Your task to perform on an android device: move an email to a new category in the gmail app Image 0: 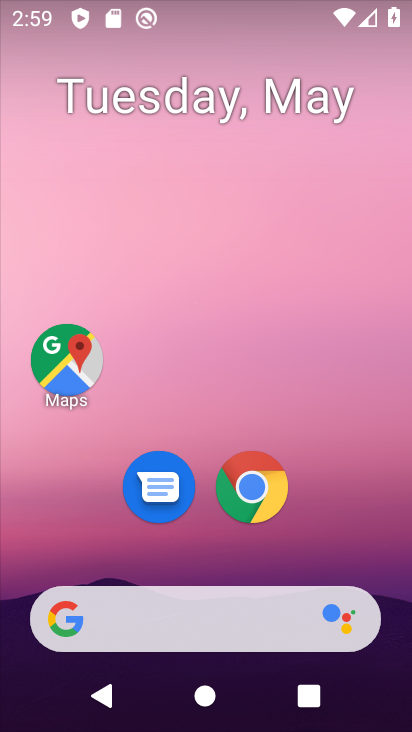
Step 0: drag from (222, 571) to (202, 19)
Your task to perform on an android device: move an email to a new category in the gmail app Image 1: 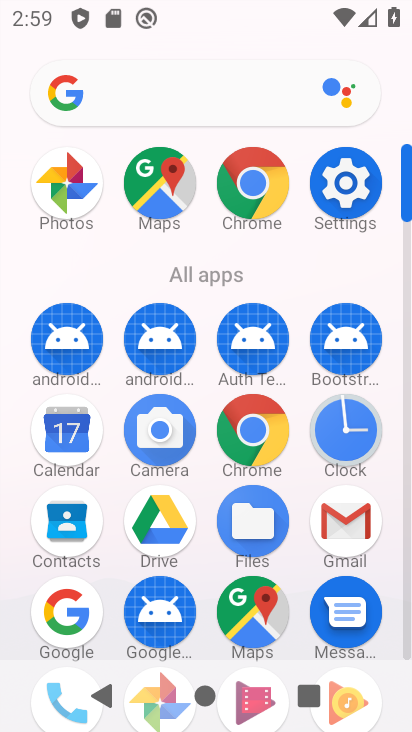
Step 1: click (335, 526)
Your task to perform on an android device: move an email to a new category in the gmail app Image 2: 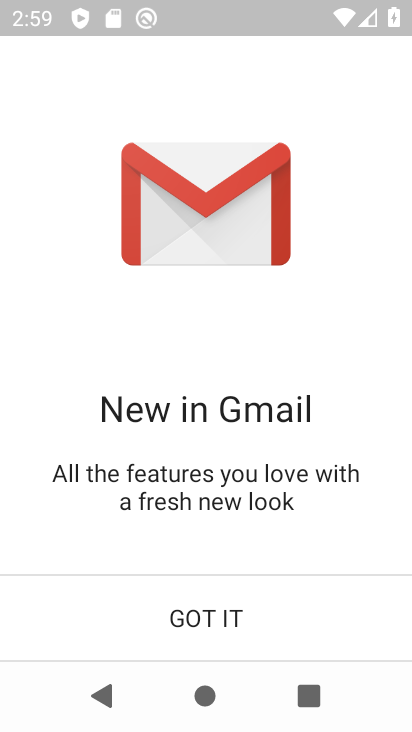
Step 2: click (158, 643)
Your task to perform on an android device: move an email to a new category in the gmail app Image 3: 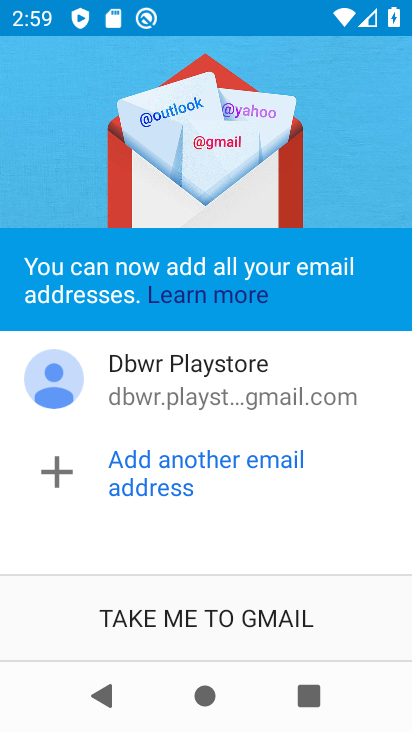
Step 3: click (168, 622)
Your task to perform on an android device: move an email to a new category in the gmail app Image 4: 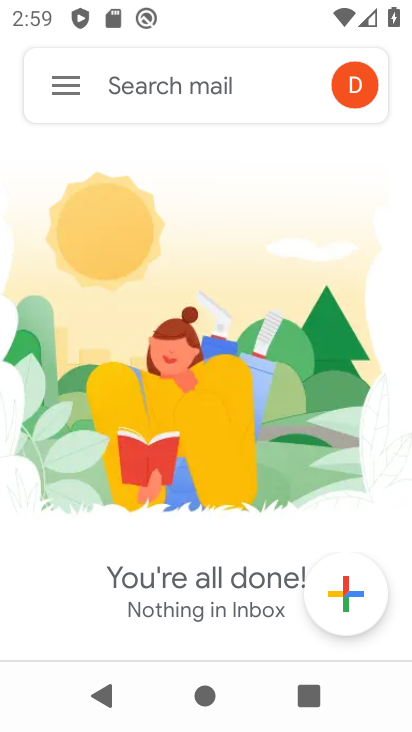
Step 4: click (60, 73)
Your task to perform on an android device: move an email to a new category in the gmail app Image 5: 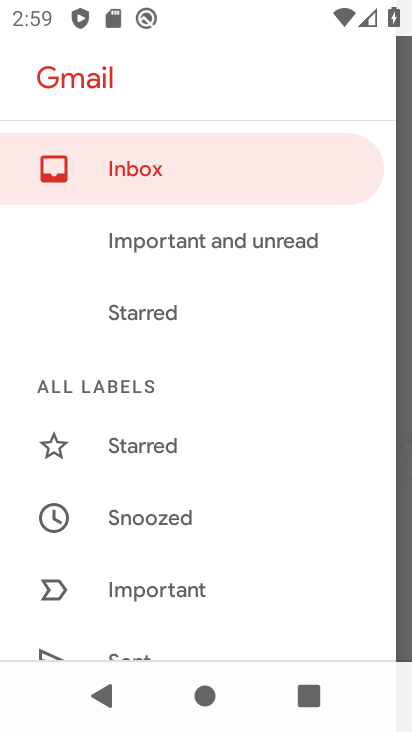
Step 5: click (159, 253)
Your task to perform on an android device: move an email to a new category in the gmail app Image 6: 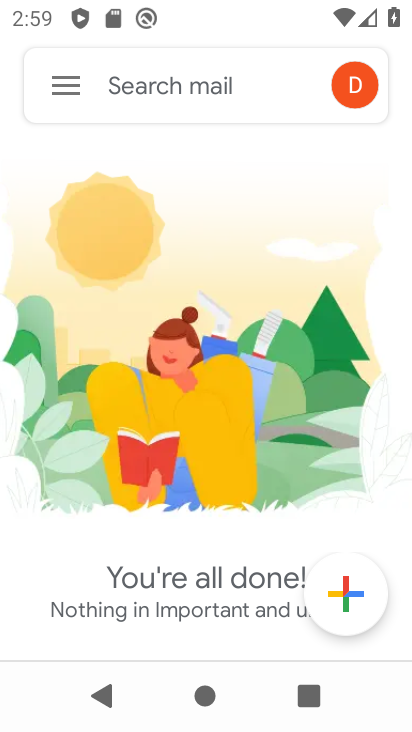
Step 6: task complete